Your task to perform on an android device: Open calendar and show me the fourth week of next month Image 0: 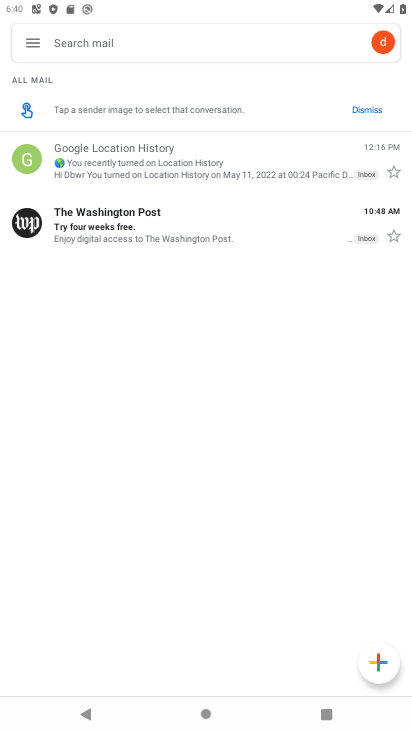
Step 0: click (206, 720)
Your task to perform on an android device: Open calendar and show me the fourth week of next month Image 1: 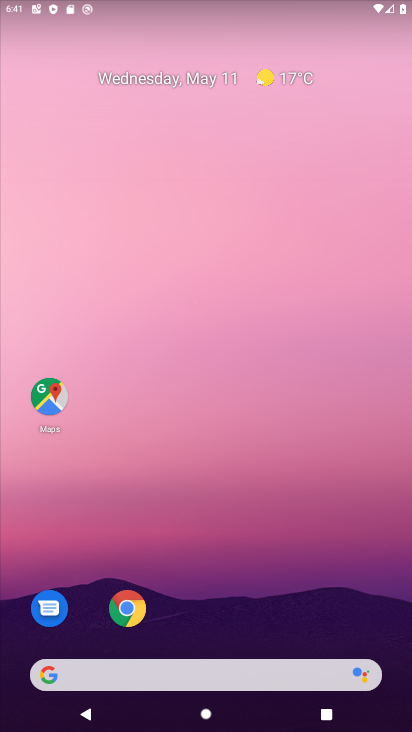
Step 1: drag from (213, 608) to (208, 139)
Your task to perform on an android device: Open calendar and show me the fourth week of next month Image 2: 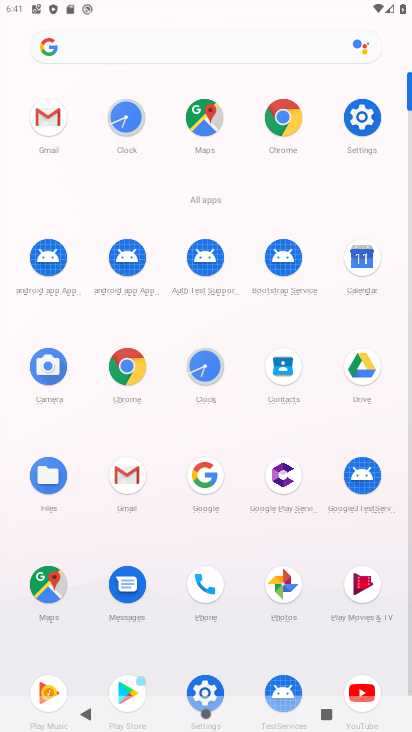
Step 2: click (349, 119)
Your task to perform on an android device: Open calendar and show me the fourth week of next month Image 3: 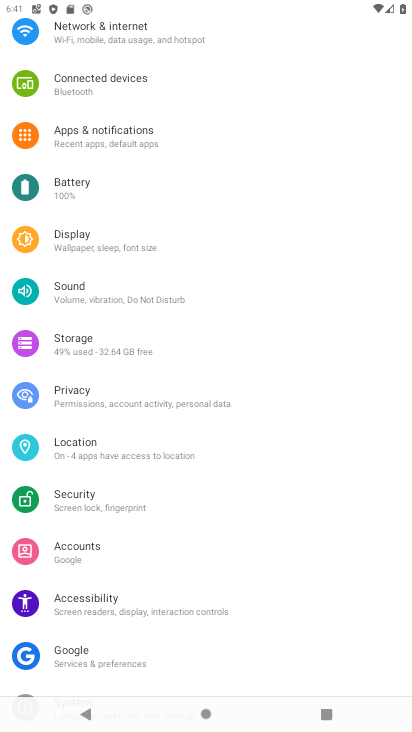
Step 3: press back button
Your task to perform on an android device: Open calendar and show me the fourth week of next month Image 4: 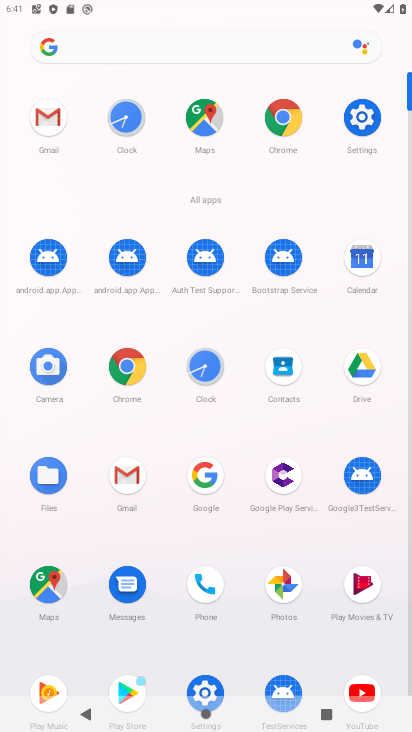
Step 4: click (360, 280)
Your task to perform on an android device: Open calendar and show me the fourth week of next month Image 5: 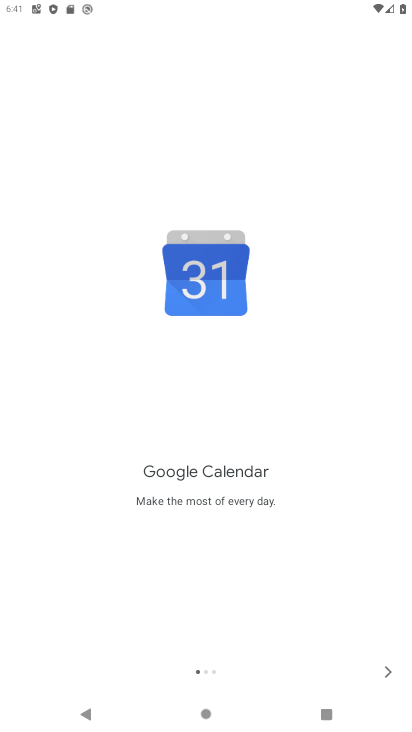
Step 5: click (387, 671)
Your task to perform on an android device: Open calendar and show me the fourth week of next month Image 6: 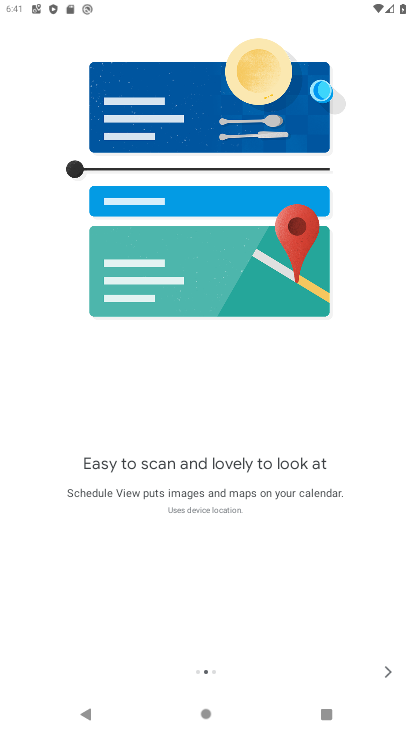
Step 6: click (387, 671)
Your task to perform on an android device: Open calendar and show me the fourth week of next month Image 7: 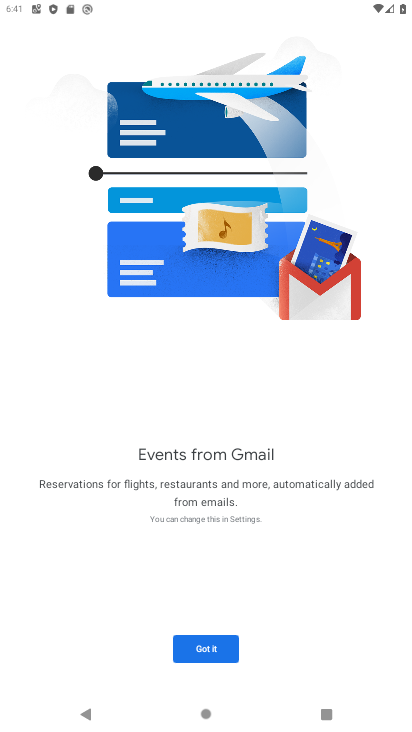
Step 7: click (219, 643)
Your task to perform on an android device: Open calendar and show me the fourth week of next month Image 8: 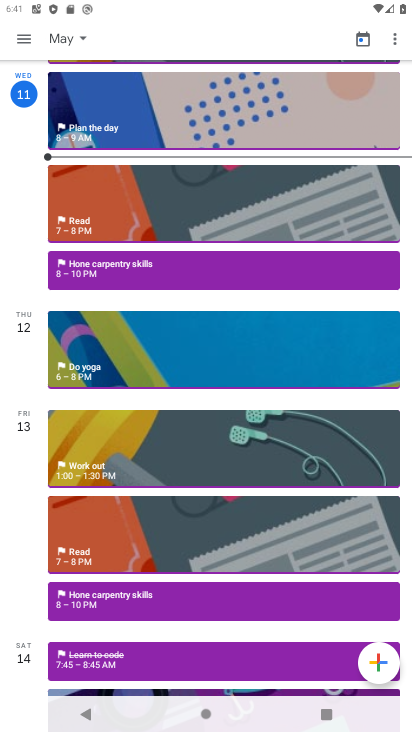
Step 8: click (81, 36)
Your task to perform on an android device: Open calendar and show me the fourth week of next month Image 9: 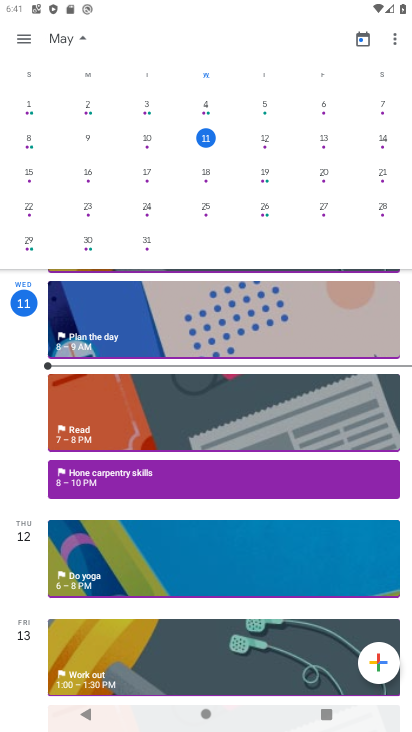
Step 9: drag from (388, 176) to (0, 177)
Your task to perform on an android device: Open calendar and show me the fourth week of next month Image 10: 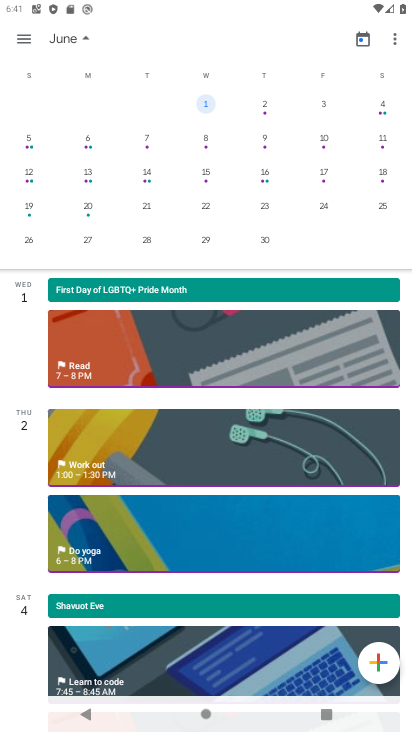
Step 10: click (143, 236)
Your task to perform on an android device: Open calendar and show me the fourth week of next month Image 11: 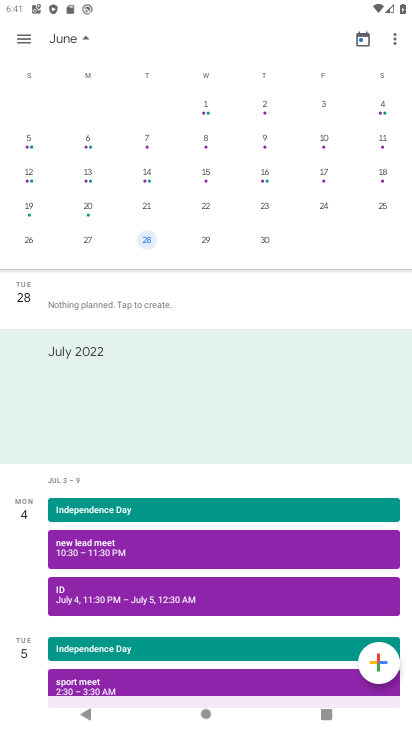
Step 11: task complete